Your task to perform on an android device: check storage Image 0: 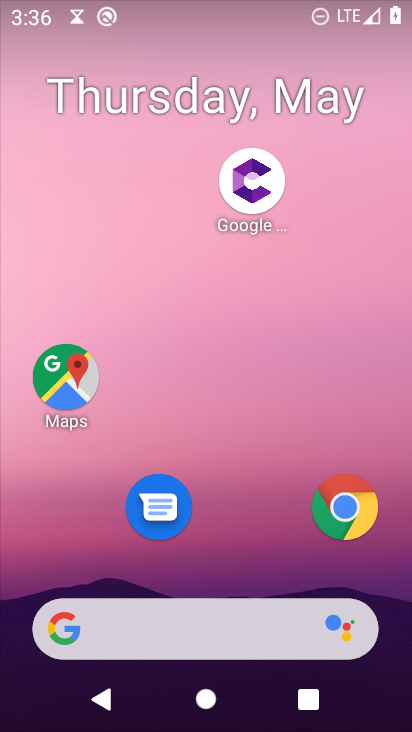
Step 0: press home button
Your task to perform on an android device: check storage Image 1: 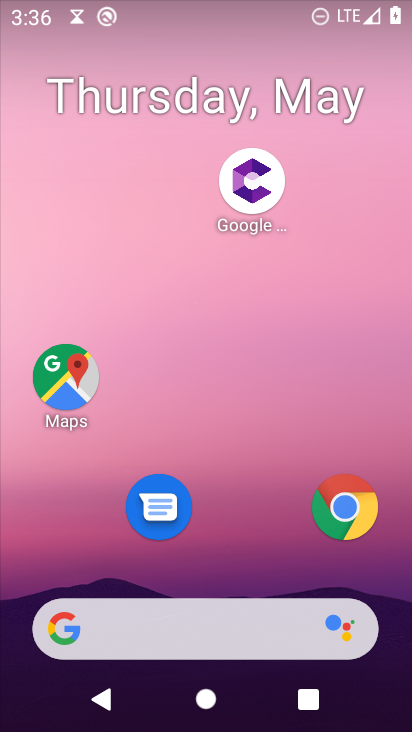
Step 1: drag from (234, 532) to (354, 2)
Your task to perform on an android device: check storage Image 2: 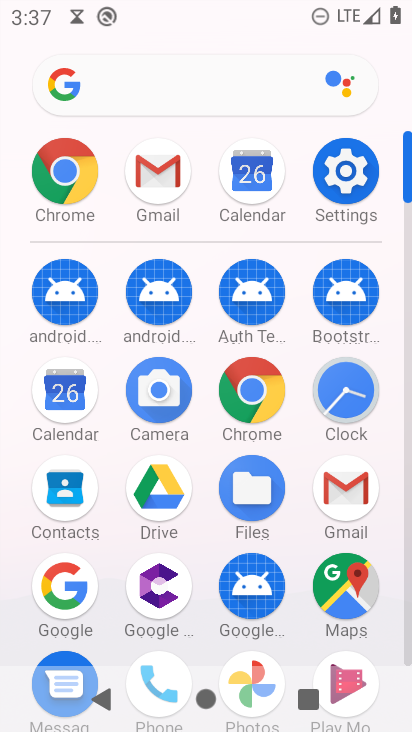
Step 2: click (365, 198)
Your task to perform on an android device: check storage Image 3: 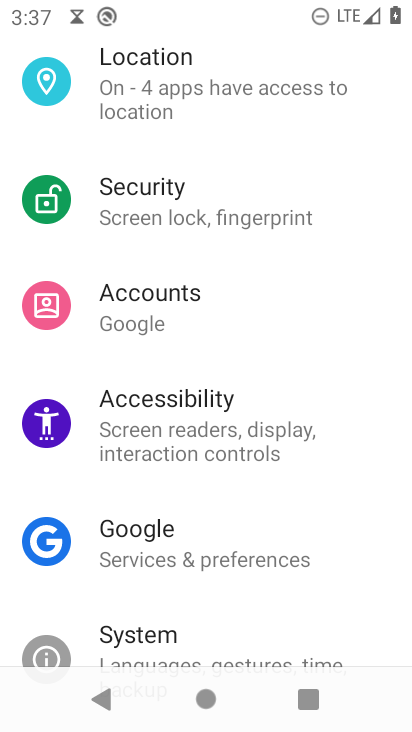
Step 3: drag from (264, 161) to (214, 664)
Your task to perform on an android device: check storage Image 4: 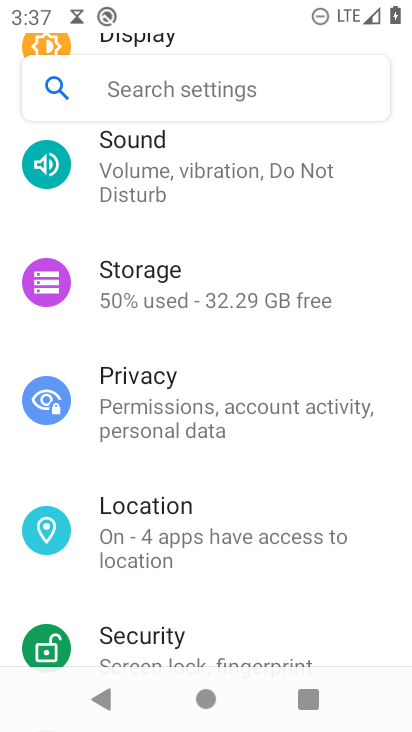
Step 4: click (132, 280)
Your task to perform on an android device: check storage Image 5: 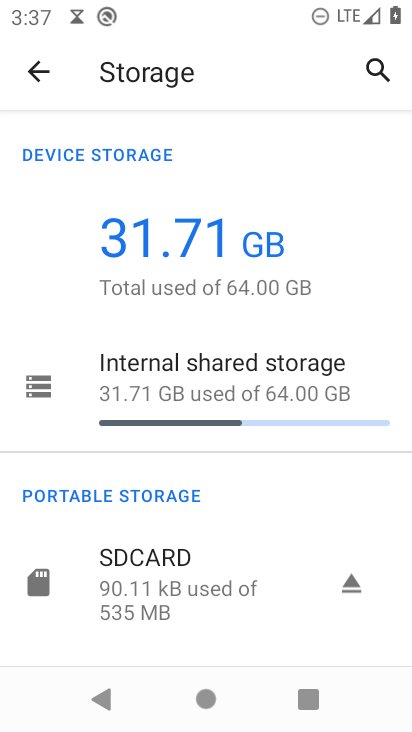
Step 5: task complete